Your task to perform on an android device: change your default location settings in chrome Image 0: 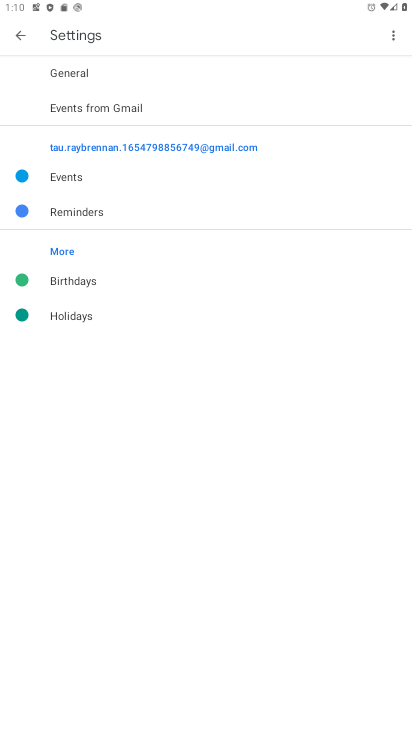
Step 0: press home button
Your task to perform on an android device: change your default location settings in chrome Image 1: 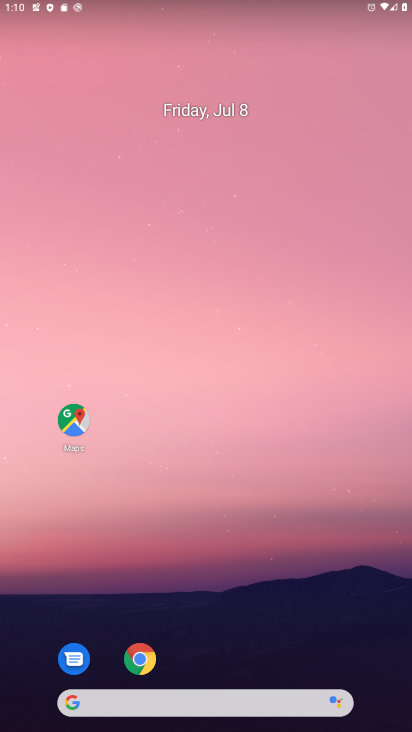
Step 1: click (138, 662)
Your task to perform on an android device: change your default location settings in chrome Image 2: 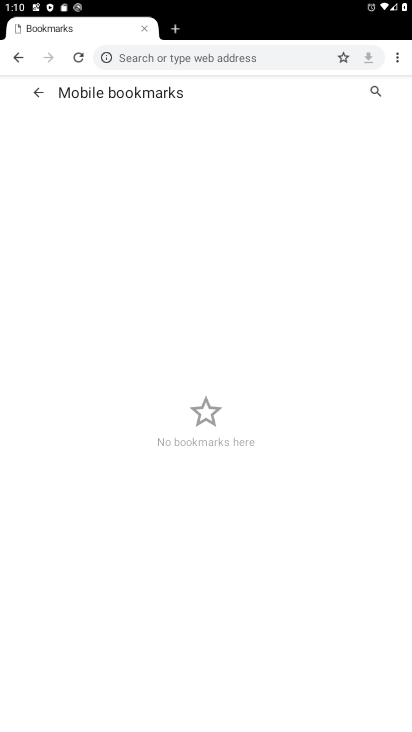
Step 2: click (396, 61)
Your task to perform on an android device: change your default location settings in chrome Image 3: 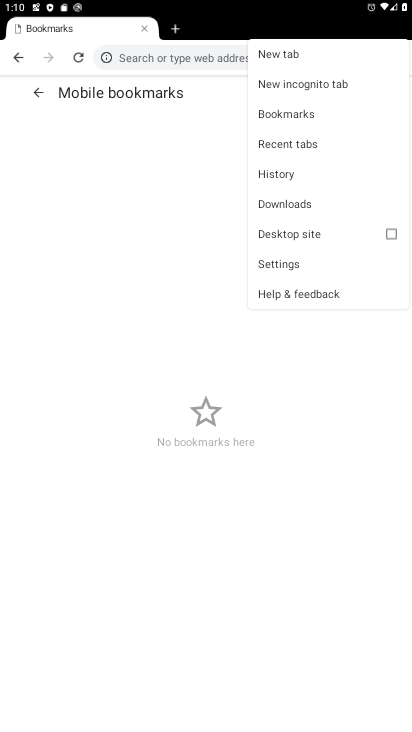
Step 3: click (282, 265)
Your task to perform on an android device: change your default location settings in chrome Image 4: 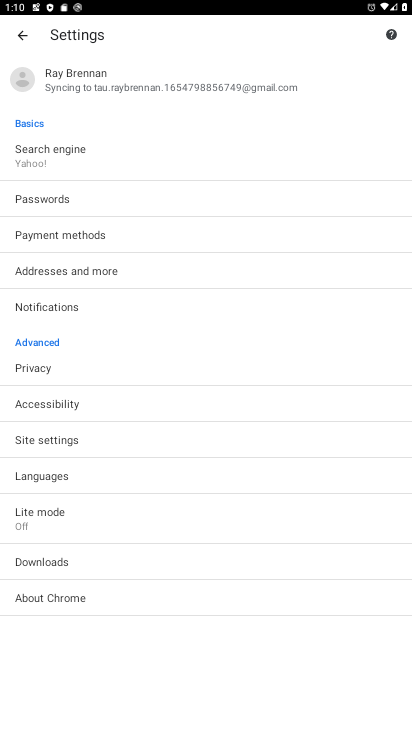
Step 4: click (51, 151)
Your task to perform on an android device: change your default location settings in chrome Image 5: 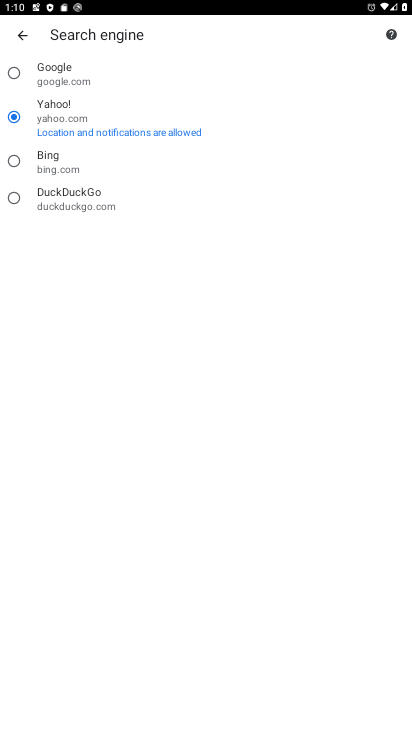
Step 5: click (15, 72)
Your task to perform on an android device: change your default location settings in chrome Image 6: 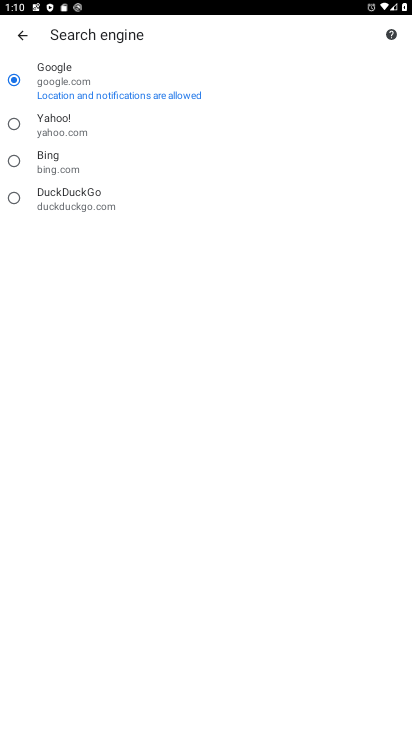
Step 6: task complete